Your task to perform on an android device: visit the assistant section in the google photos Image 0: 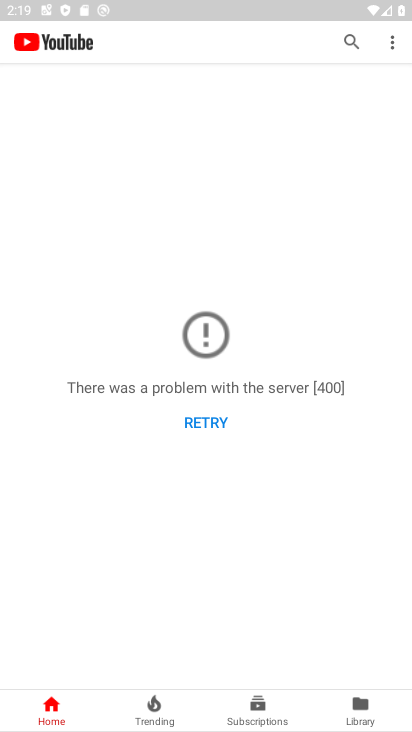
Step 0: press home button
Your task to perform on an android device: visit the assistant section in the google photos Image 1: 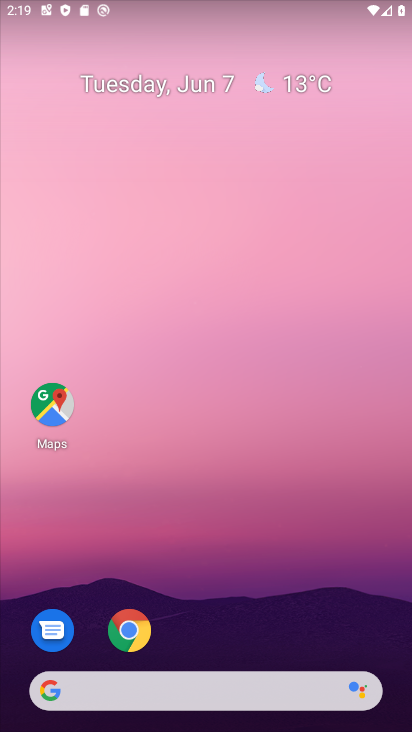
Step 1: drag from (200, 605) to (347, 67)
Your task to perform on an android device: visit the assistant section in the google photos Image 2: 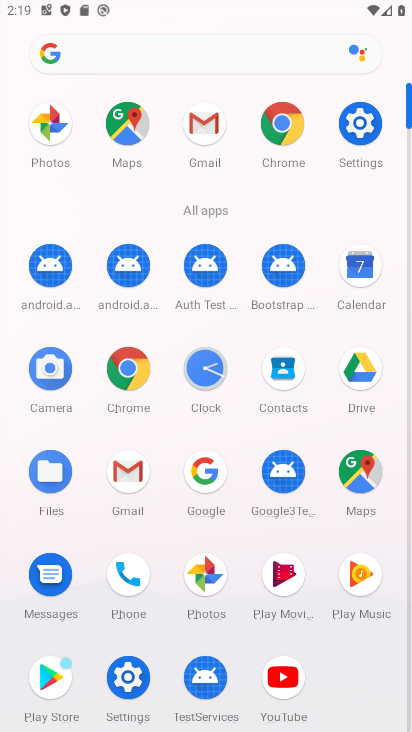
Step 2: click (203, 581)
Your task to perform on an android device: visit the assistant section in the google photos Image 3: 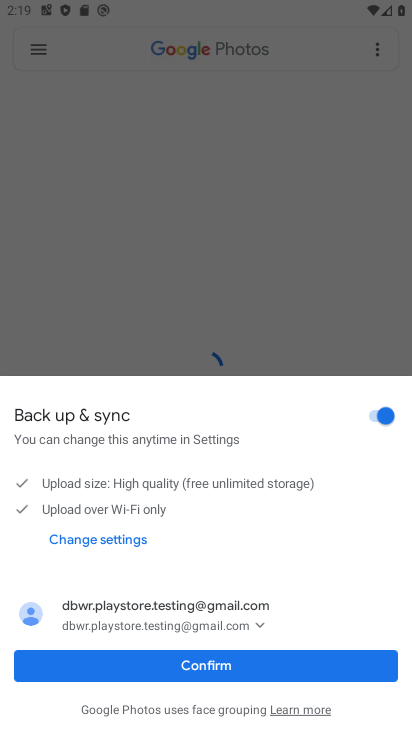
Step 3: click (254, 696)
Your task to perform on an android device: visit the assistant section in the google photos Image 4: 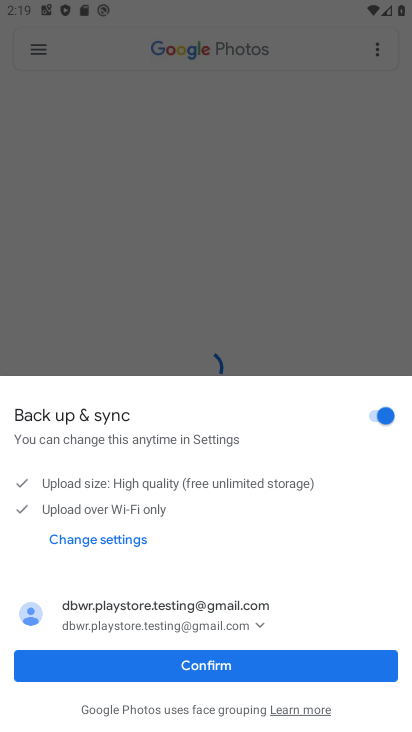
Step 4: click (281, 665)
Your task to perform on an android device: visit the assistant section in the google photos Image 5: 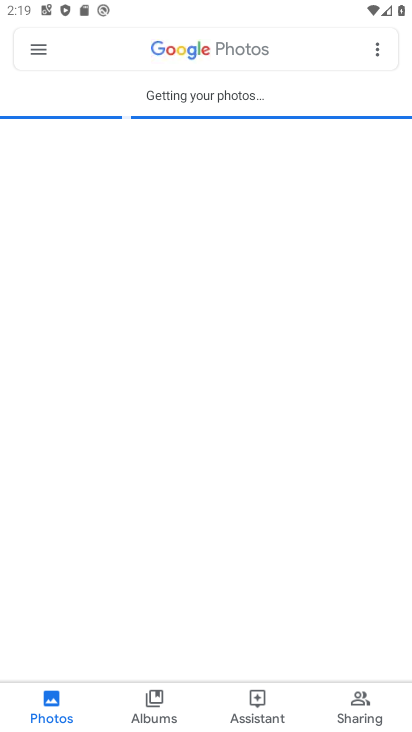
Step 5: click (252, 705)
Your task to perform on an android device: visit the assistant section in the google photos Image 6: 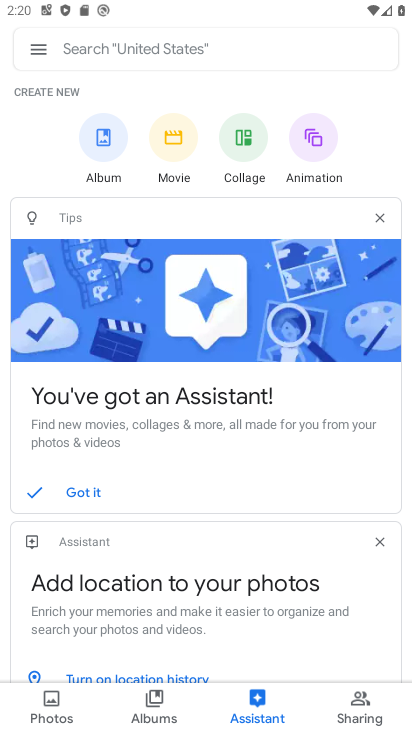
Step 6: task complete